Your task to perform on an android device: delete the emails in spam in the gmail app Image 0: 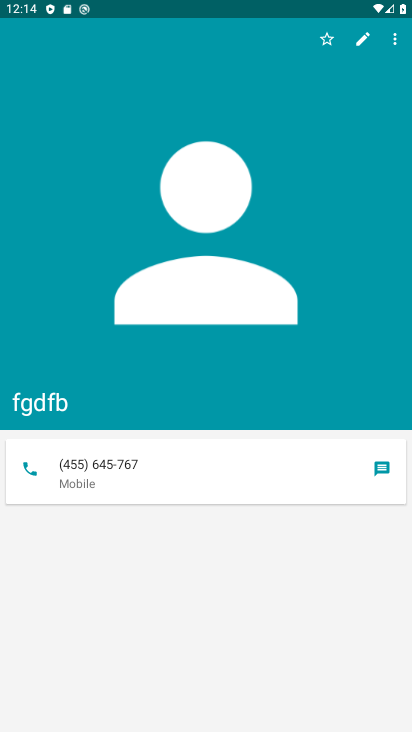
Step 0: press home button
Your task to perform on an android device: delete the emails in spam in the gmail app Image 1: 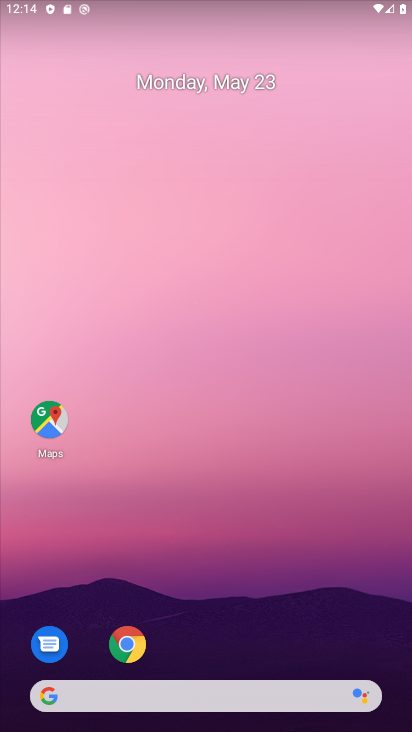
Step 1: drag from (272, 645) to (287, 78)
Your task to perform on an android device: delete the emails in spam in the gmail app Image 2: 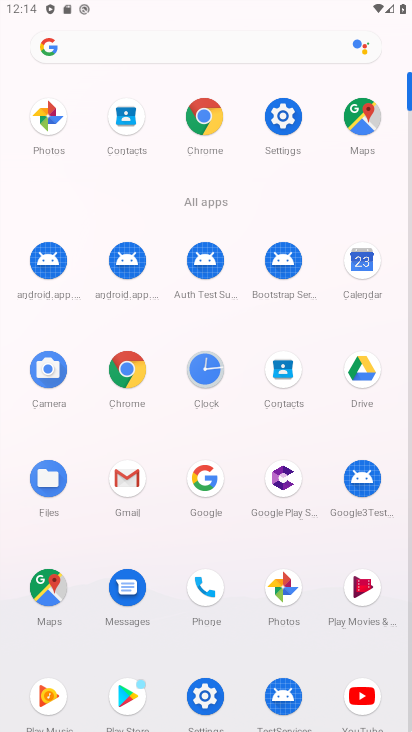
Step 2: click (127, 479)
Your task to perform on an android device: delete the emails in spam in the gmail app Image 3: 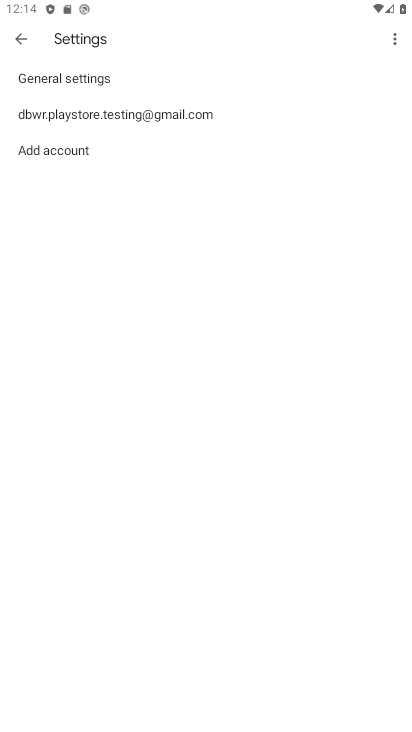
Step 3: click (17, 35)
Your task to perform on an android device: delete the emails in spam in the gmail app Image 4: 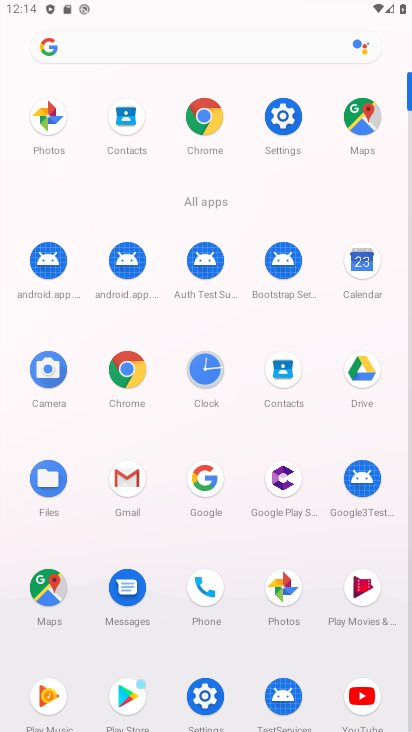
Step 4: click (129, 472)
Your task to perform on an android device: delete the emails in spam in the gmail app Image 5: 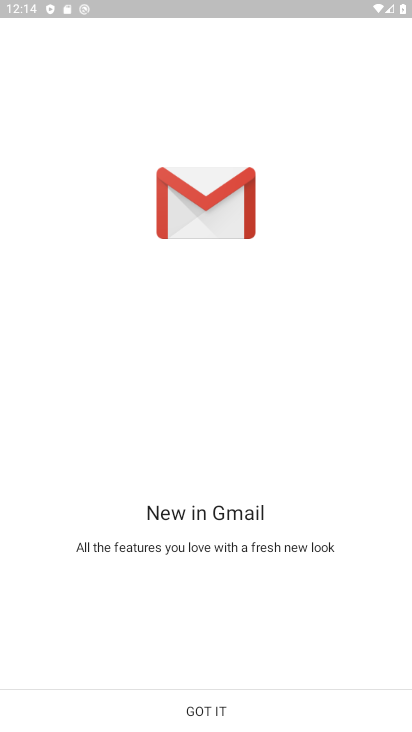
Step 5: click (211, 712)
Your task to perform on an android device: delete the emails in spam in the gmail app Image 6: 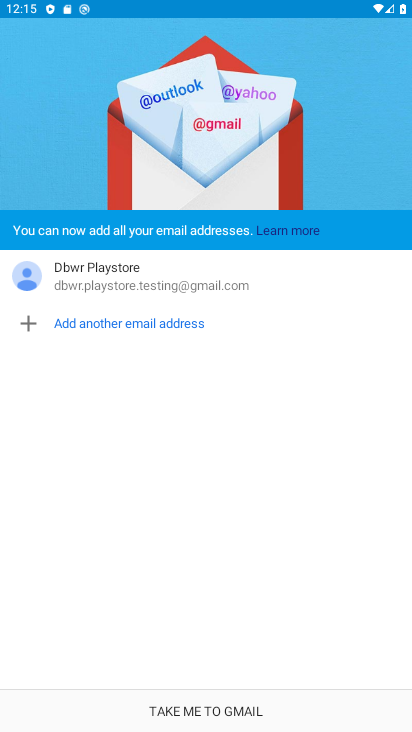
Step 6: click (227, 702)
Your task to perform on an android device: delete the emails in spam in the gmail app Image 7: 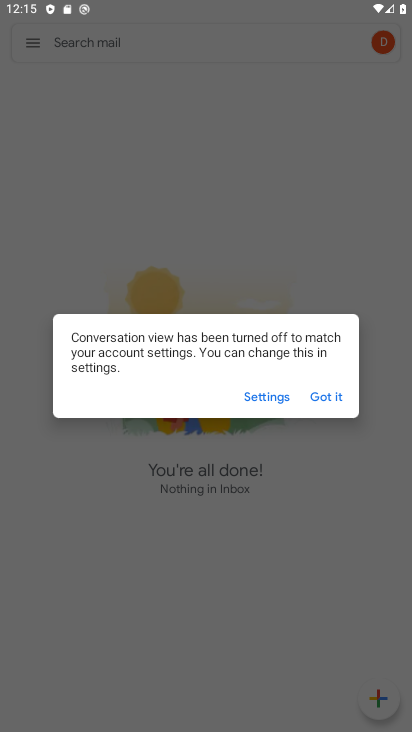
Step 7: click (330, 398)
Your task to perform on an android device: delete the emails in spam in the gmail app Image 8: 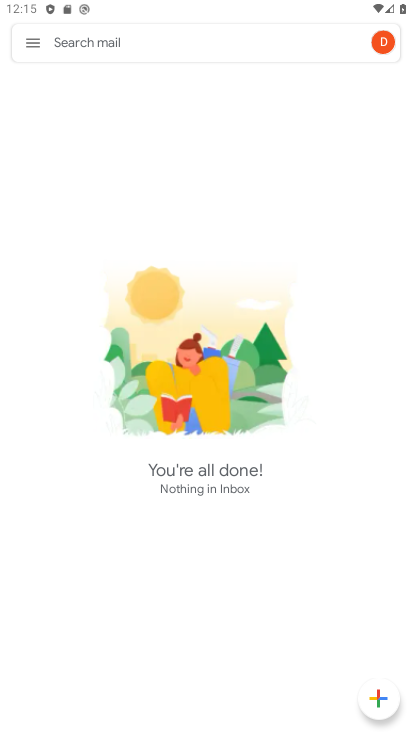
Step 8: click (31, 39)
Your task to perform on an android device: delete the emails in spam in the gmail app Image 9: 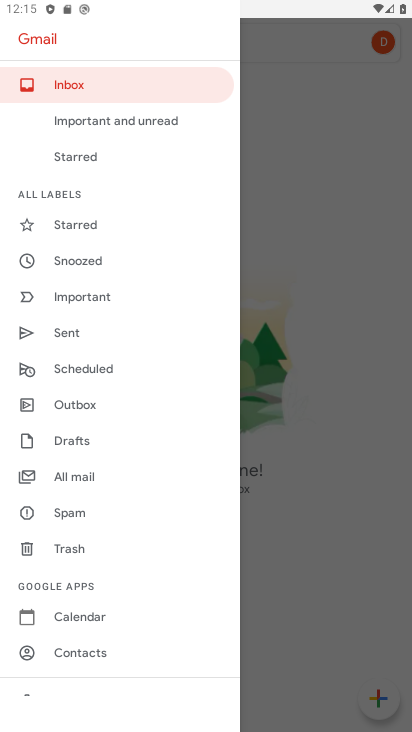
Step 9: click (79, 510)
Your task to perform on an android device: delete the emails in spam in the gmail app Image 10: 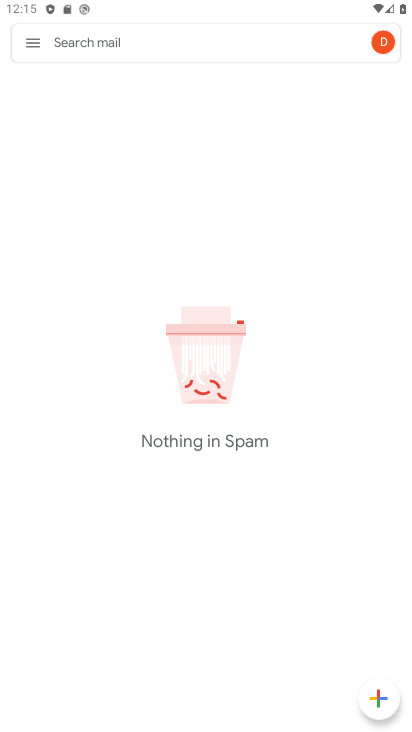
Step 10: task complete